Your task to perform on an android device: Clear the cart on ebay. Add "logitech g pro" to the cart on ebay, then select checkout. Image 0: 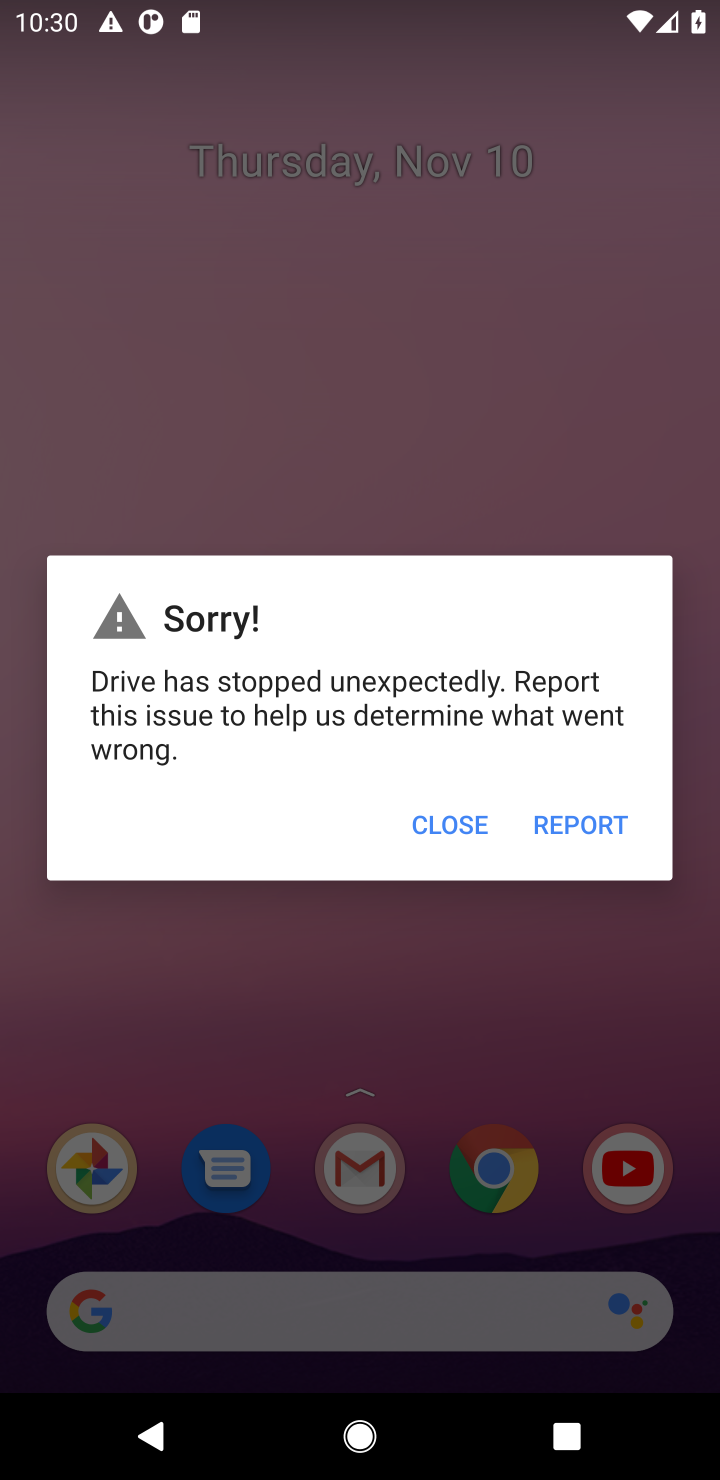
Step 0: press home button
Your task to perform on an android device: Clear the cart on ebay. Add "logitech g pro" to the cart on ebay, then select checkout. Image 1: 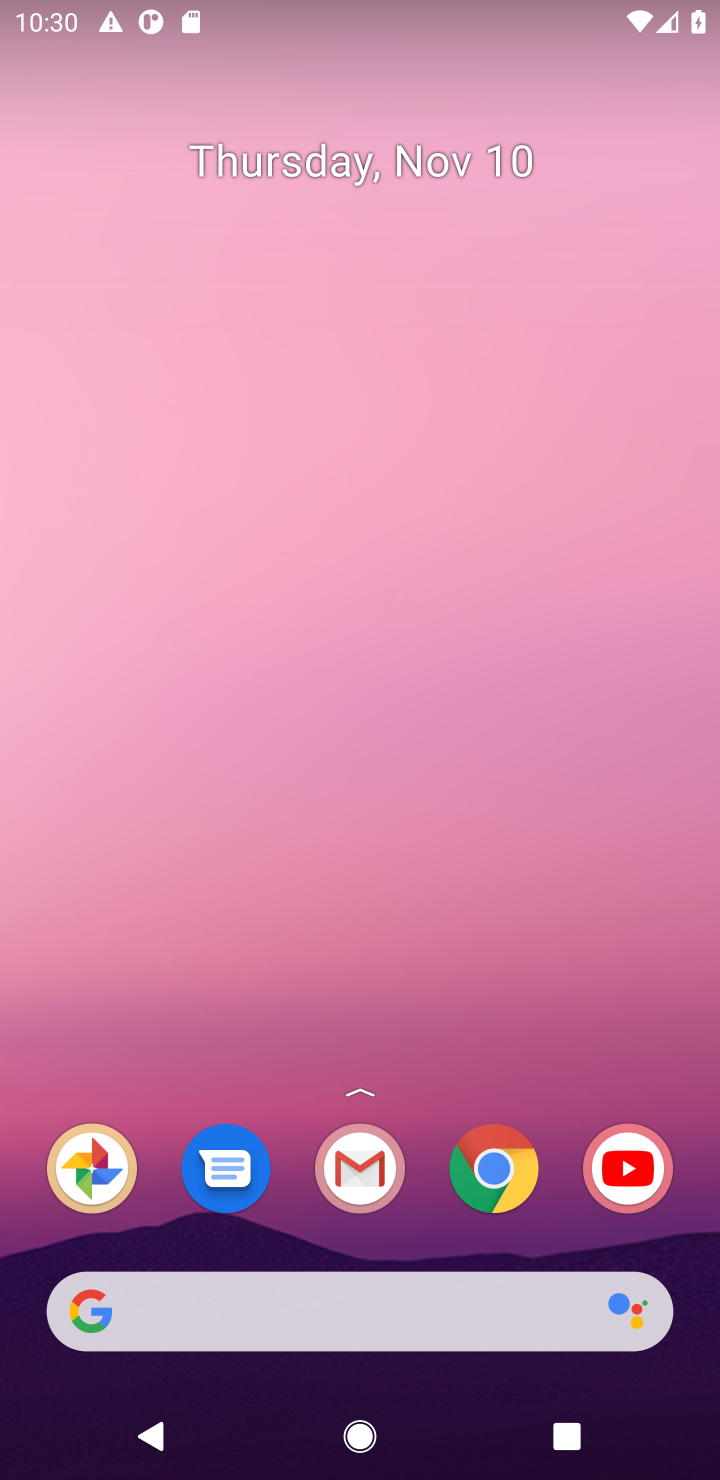
Step 1: click (495, 1171)
Your task to perform on an android device: Clear the cart on ebay. Add "logitech g pro" to the cart on ebay, then select checkout. Image 2: 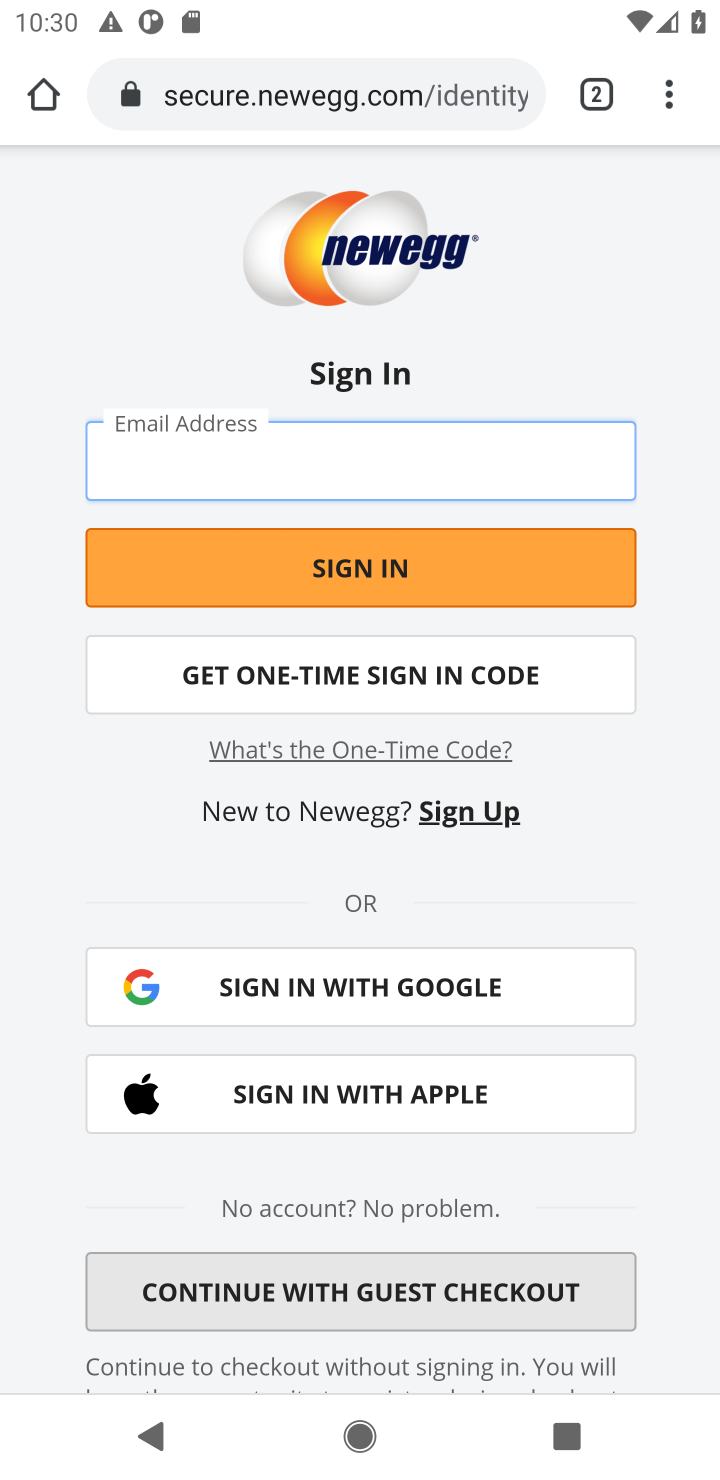
Step 2: click (297, 104)
Your task to perform on an android device: Clear the cart on ebay. Add "logitech g pro" to the cart on ebay, then select checkout. Image 3: 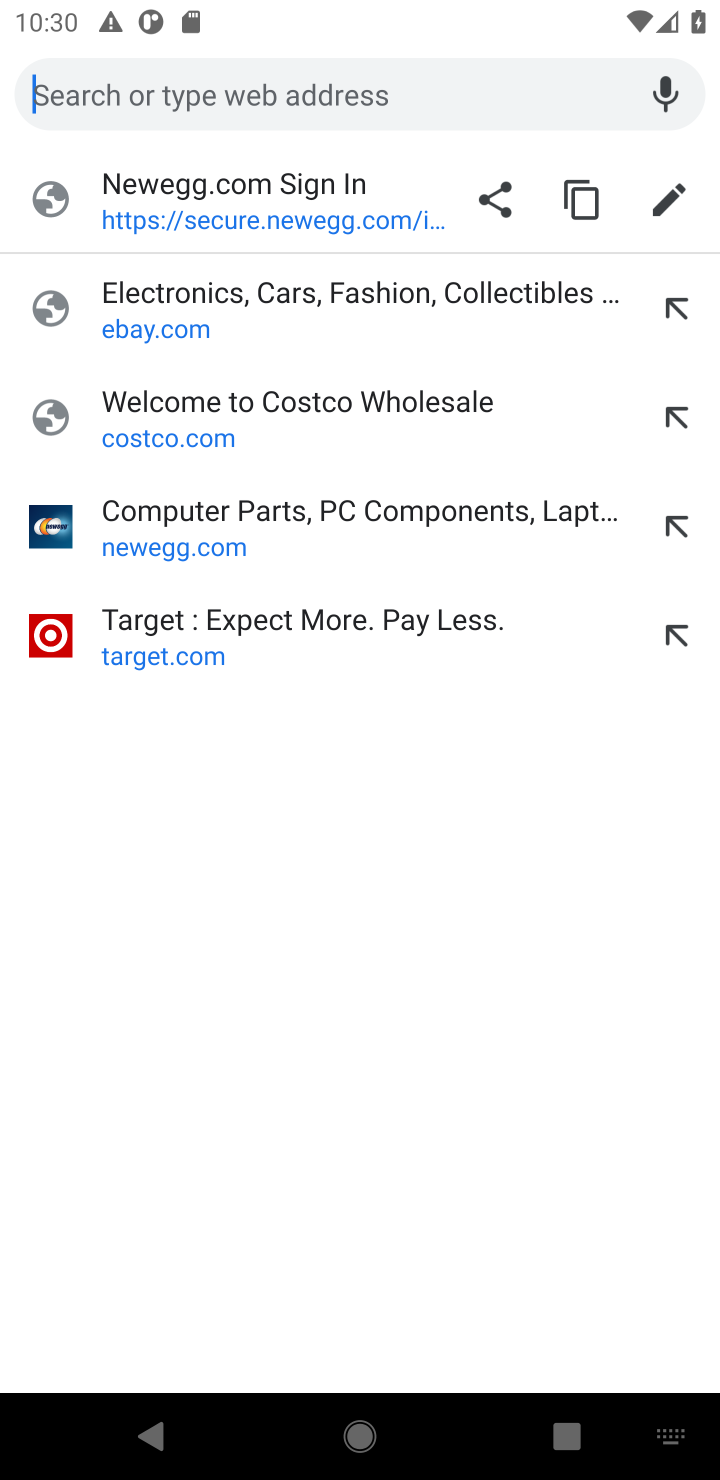
Step 3: click (155, 296)
Your task to perform on an android device: Clear the cart on ebay. Add "logitech g pro" to the cart on ebay, then select checkout. Image 4: 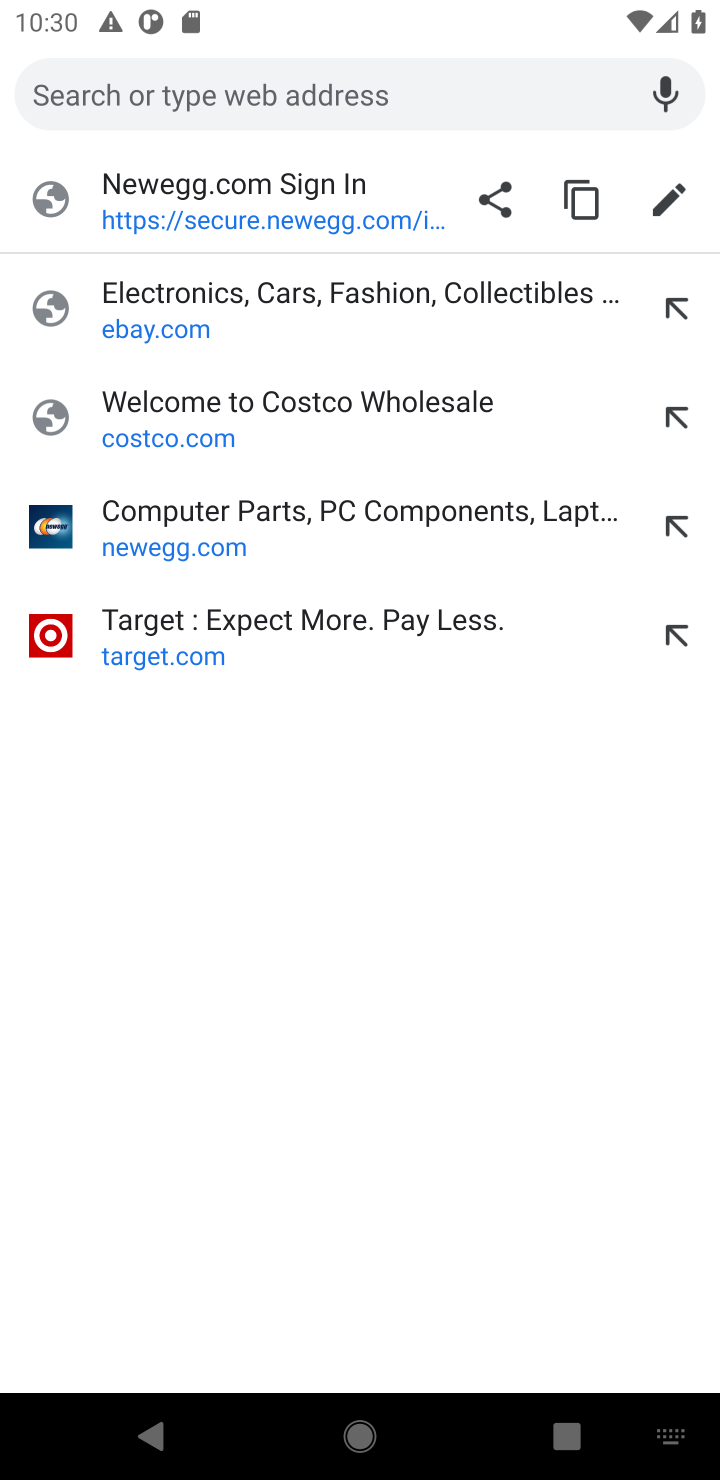
Step 4: click (165, 327)
Your task to perform on an android device: Clear the cart on ebay. Add "logitech g pro" to the cart on ebay, then select checkout. Image 5: 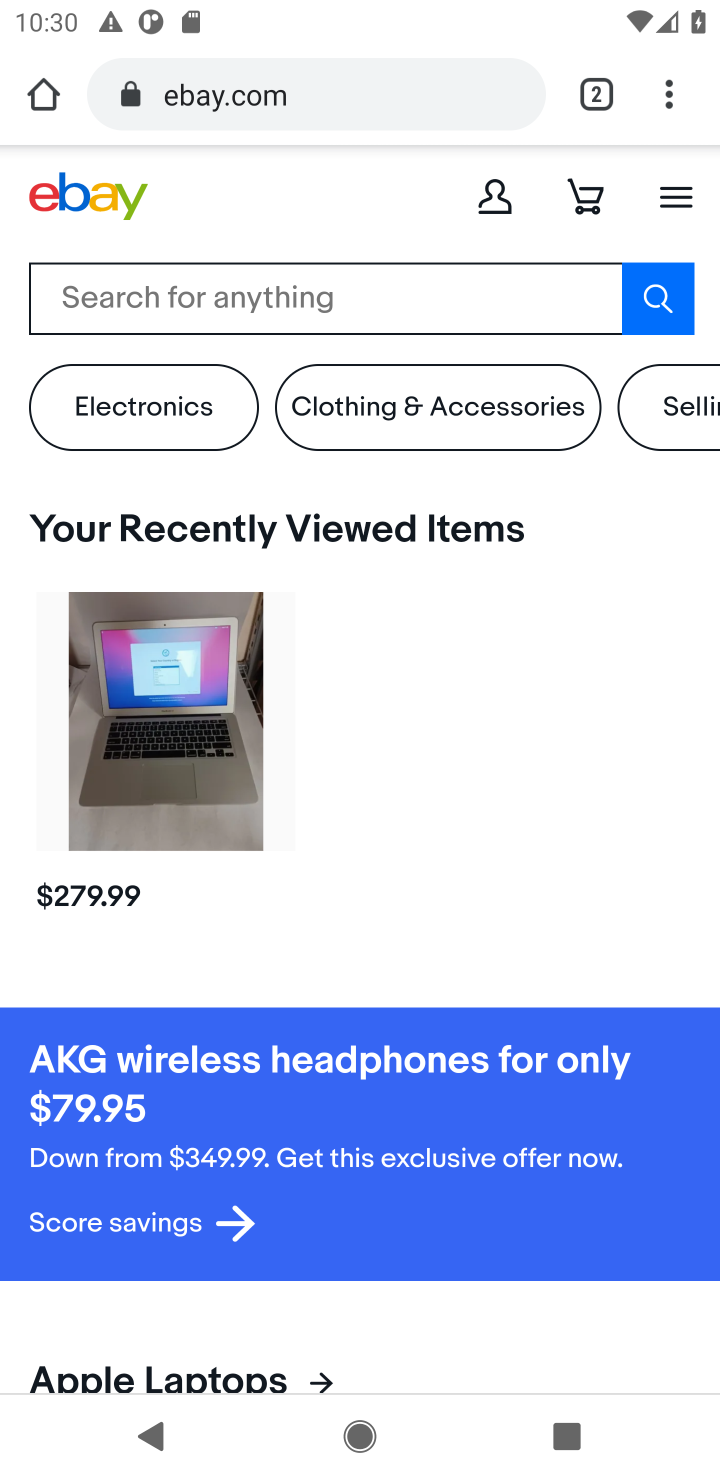
Step 5: click (580, 195)
Your task to perform on an android device: Clear the cart on ebay. Add "logitech g pro" to the cart on ebay, then select checkout. Image 6: 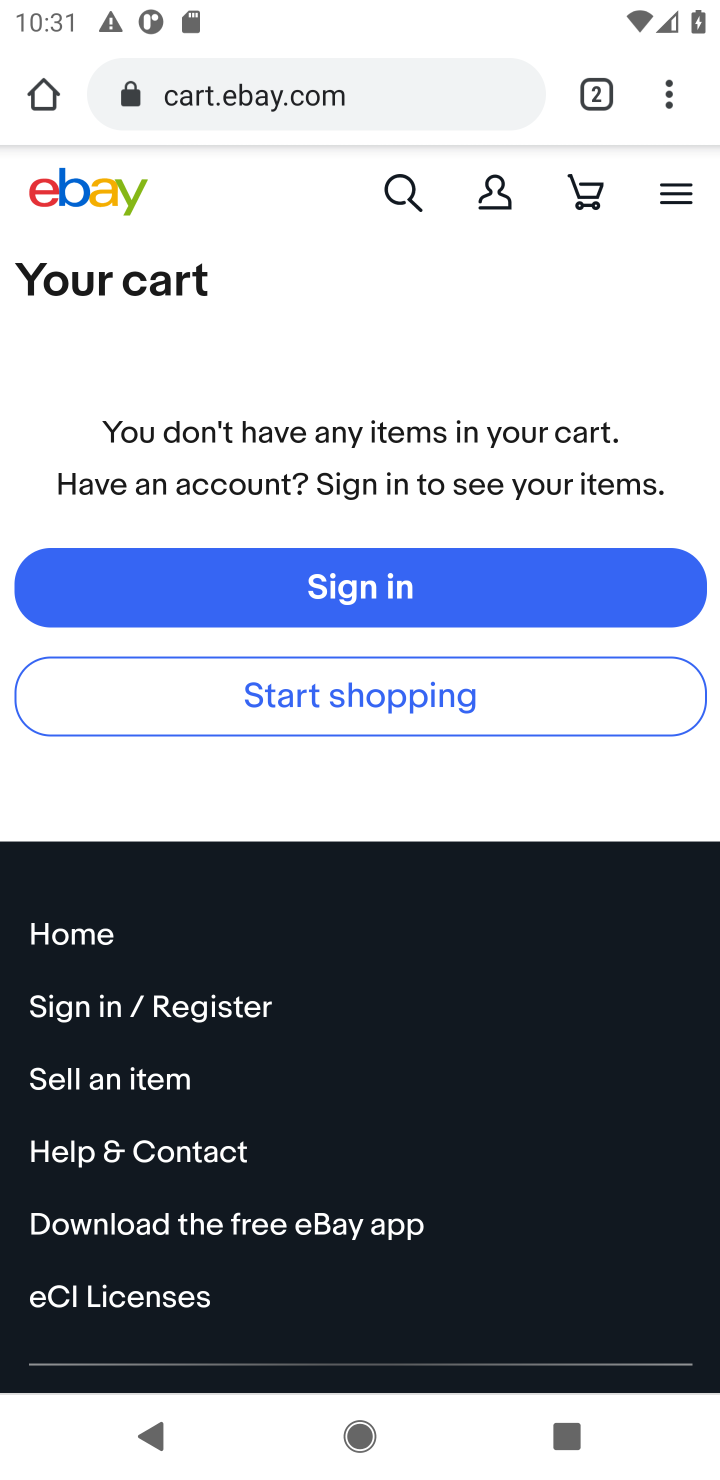
Step 6: click (391, 204)
Your task to perform on an android device: Clear the cart on ebay. Add "logitech g pro" to the cart on ebay, then select checkout. Image 7: 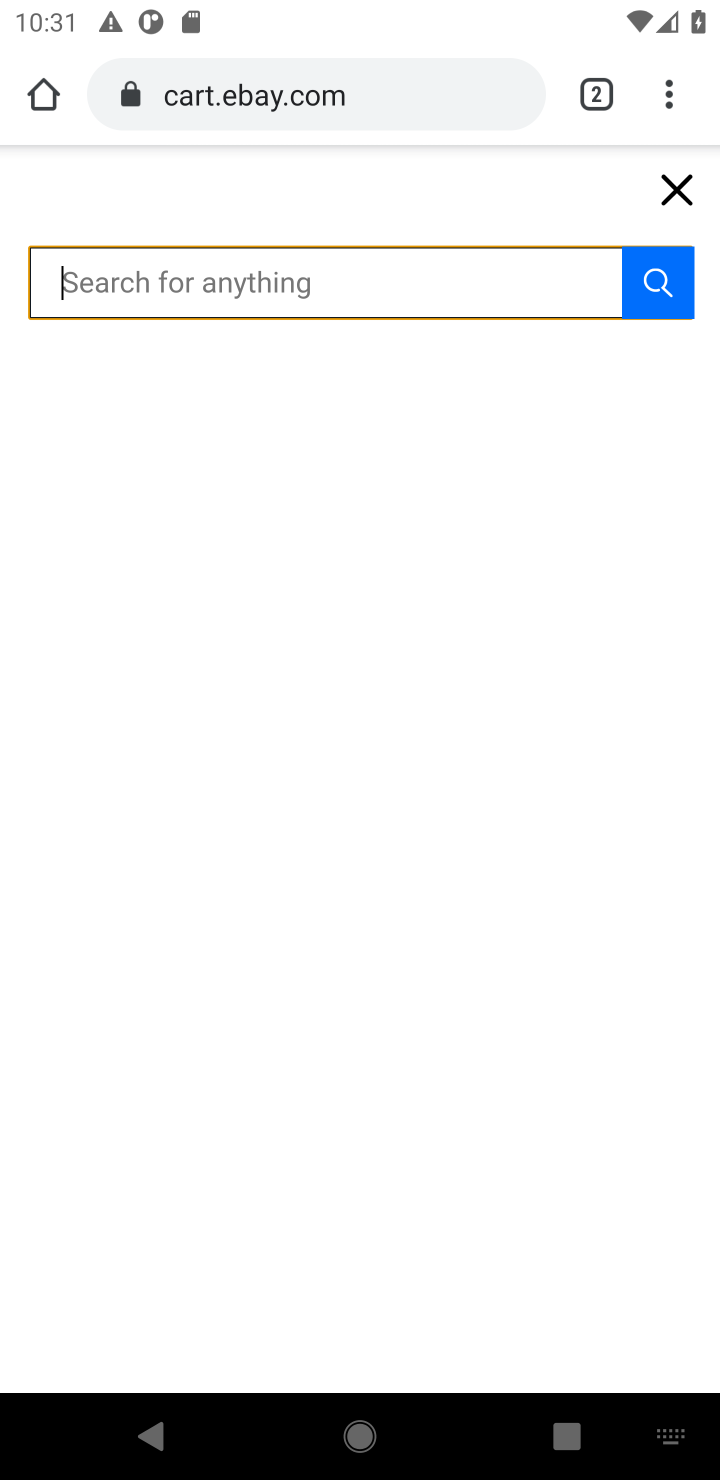
Step 7: type "logitech g pro"
Your task to perform on an android device: Clear the cart on ebay. Add "logitech g pro" to the cart on ebay, then select checkout. Image 8: 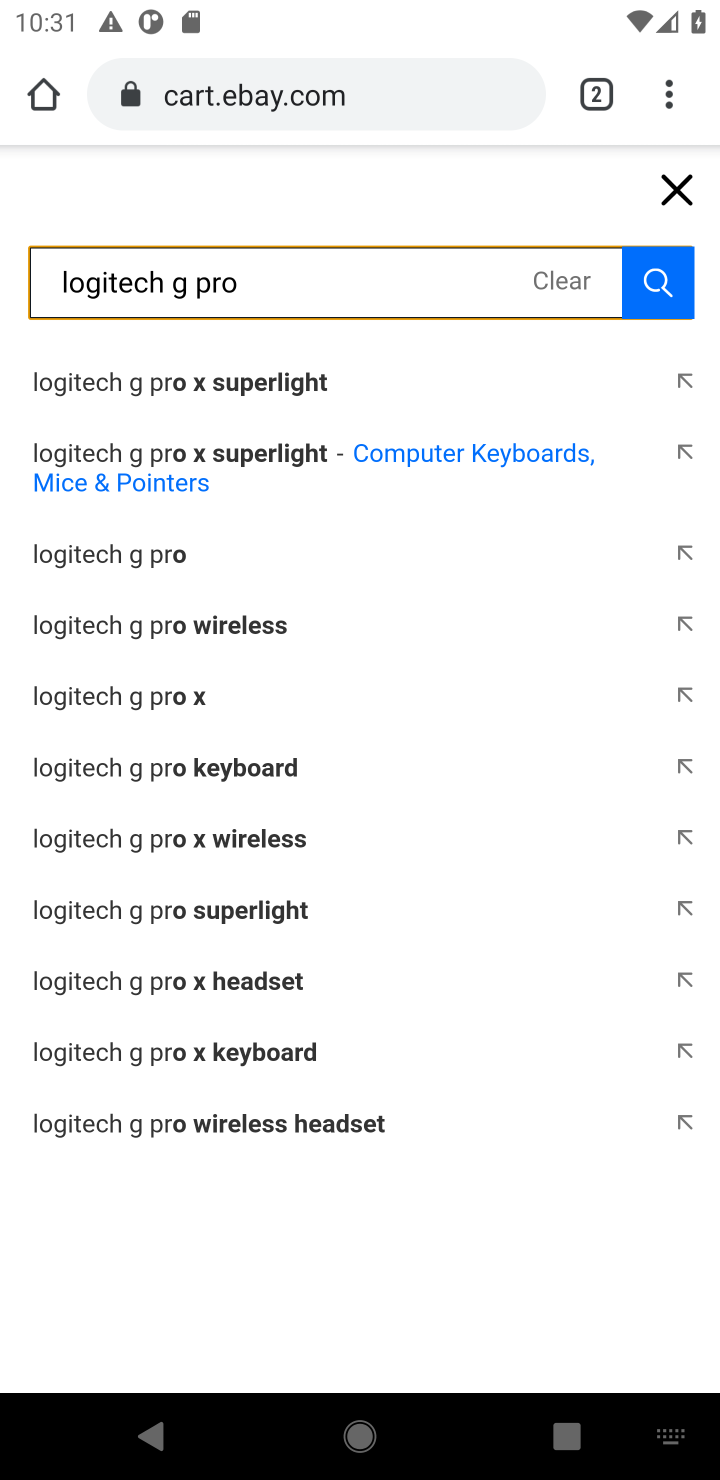
Step 8: click (145, 563)
Your task to perform on an android device: Clear the cart on ebay. Add "logitech g pro" to the cart on ebay, then select checkout. Image 9: 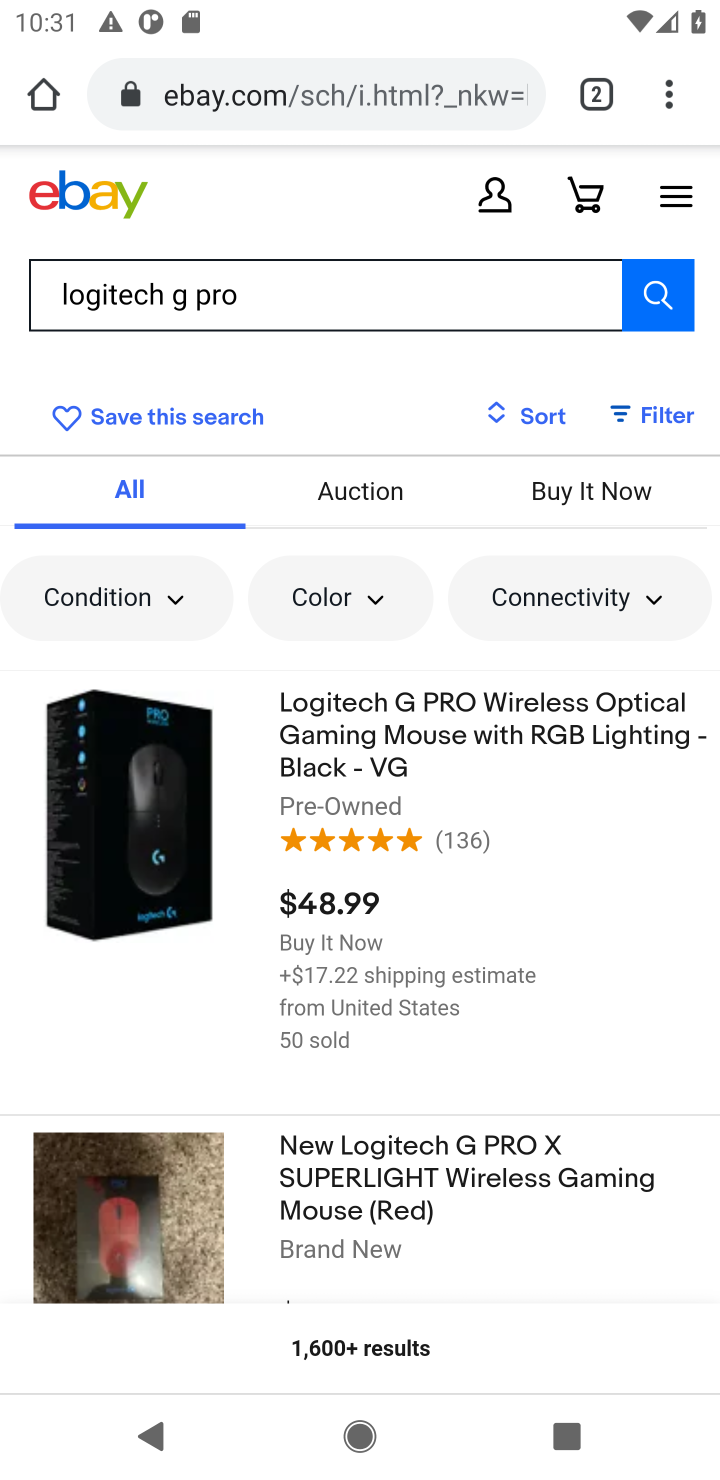
Step 9: click (134, 816)
Your task to perform on an android device: Clear the cart on ebay. Add "logitech g pro" to the cart on ebay, then select checkout. Image 10: 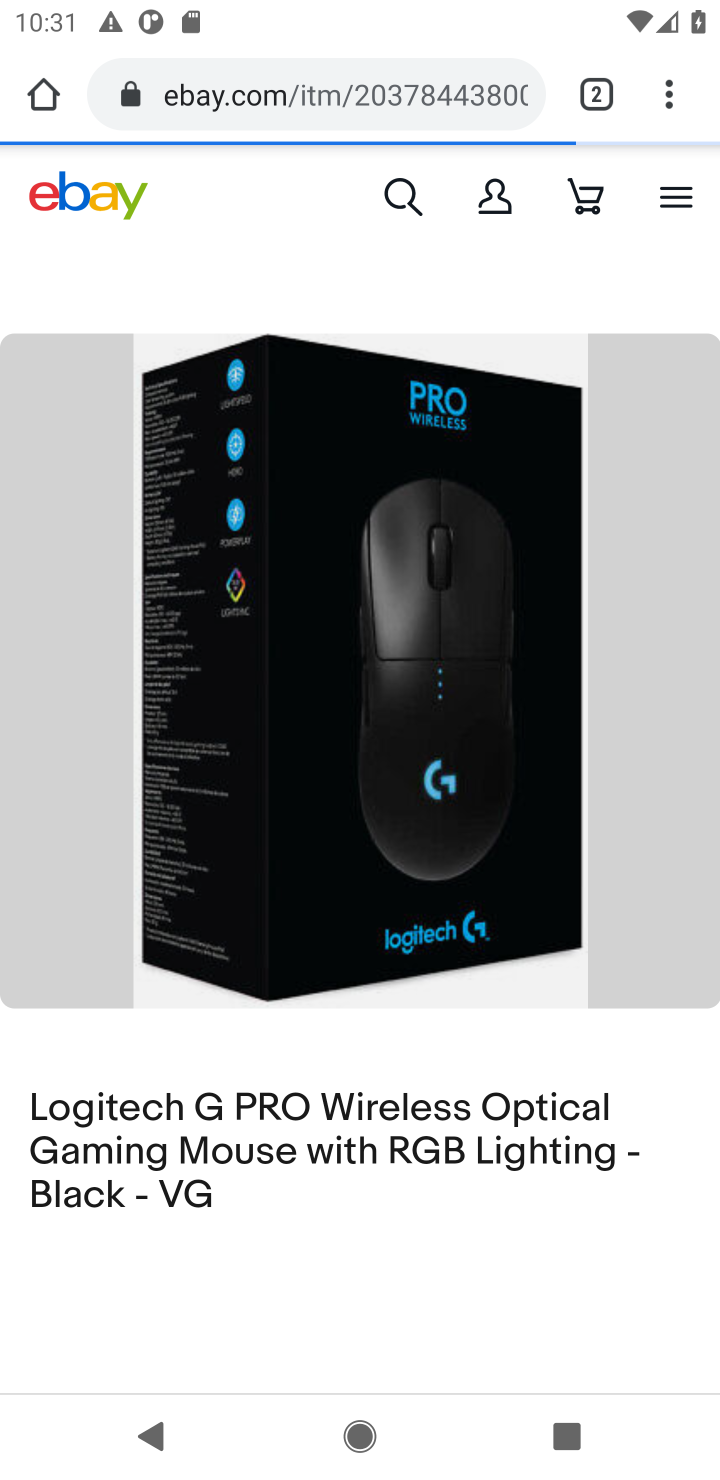
Step 10: drag from (339, 1050) to (301, 353)
Your task to perform on an android device: Clear the cart on ebay. Add "logitech g pro" to the cart on ebay, then select checkout. Image 11: 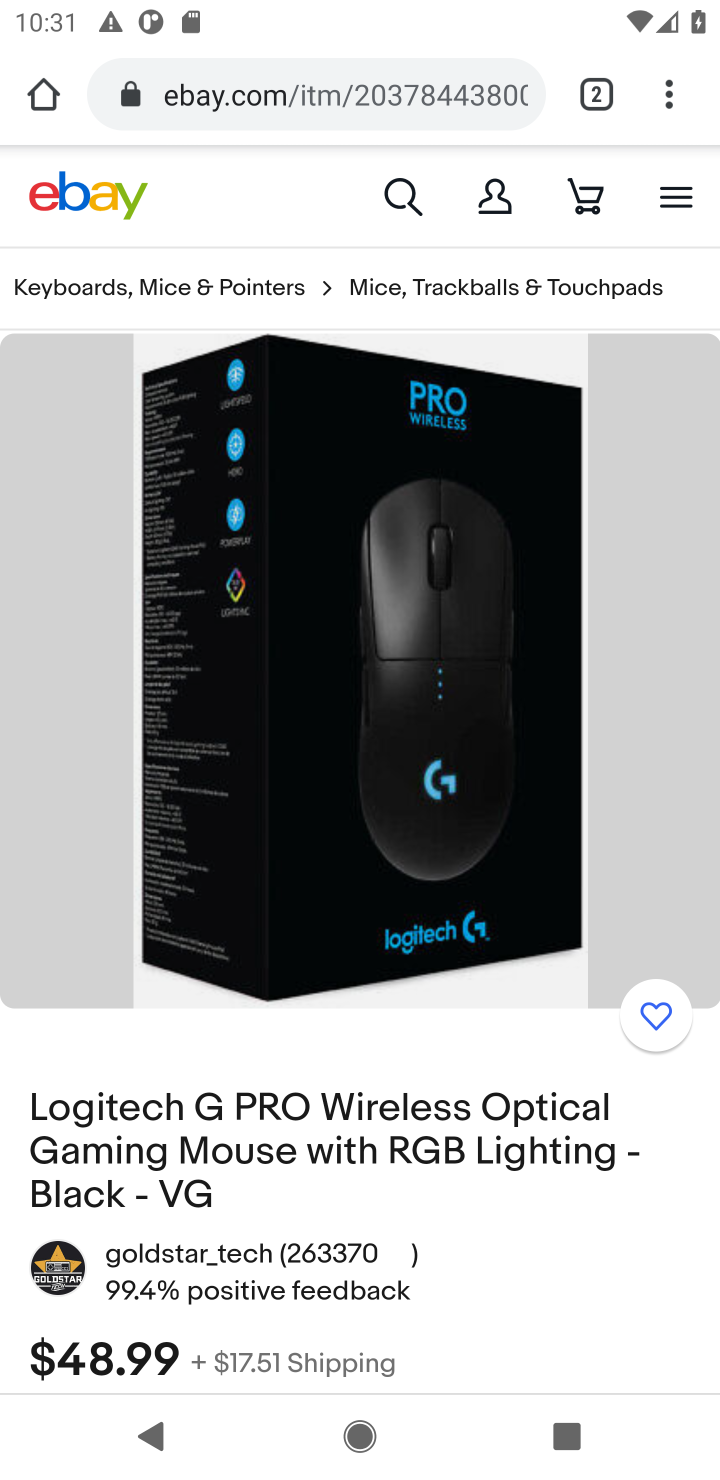
Step 11: drag from (412, 986) to (374, 429)
Your task to perform on an android device: Clear the cart on ebay. Add "logitech g pro" to the cart on ebay, then select checkout. Image 12: 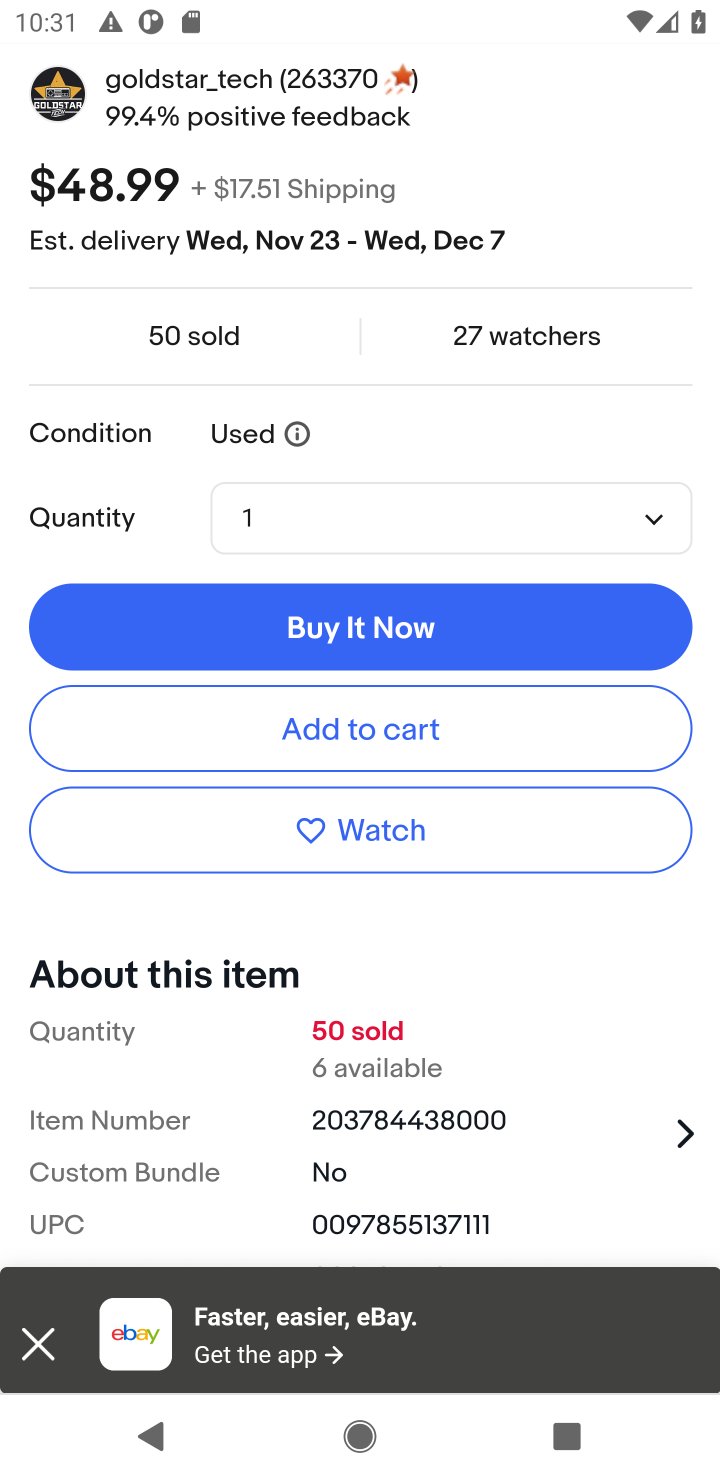
Step 12: click (324, 727)
Your task to perform on an android device: Clear the cart on ebay. Add "logitech g pro" to the cart on ebay, then select checkout. Image 13: 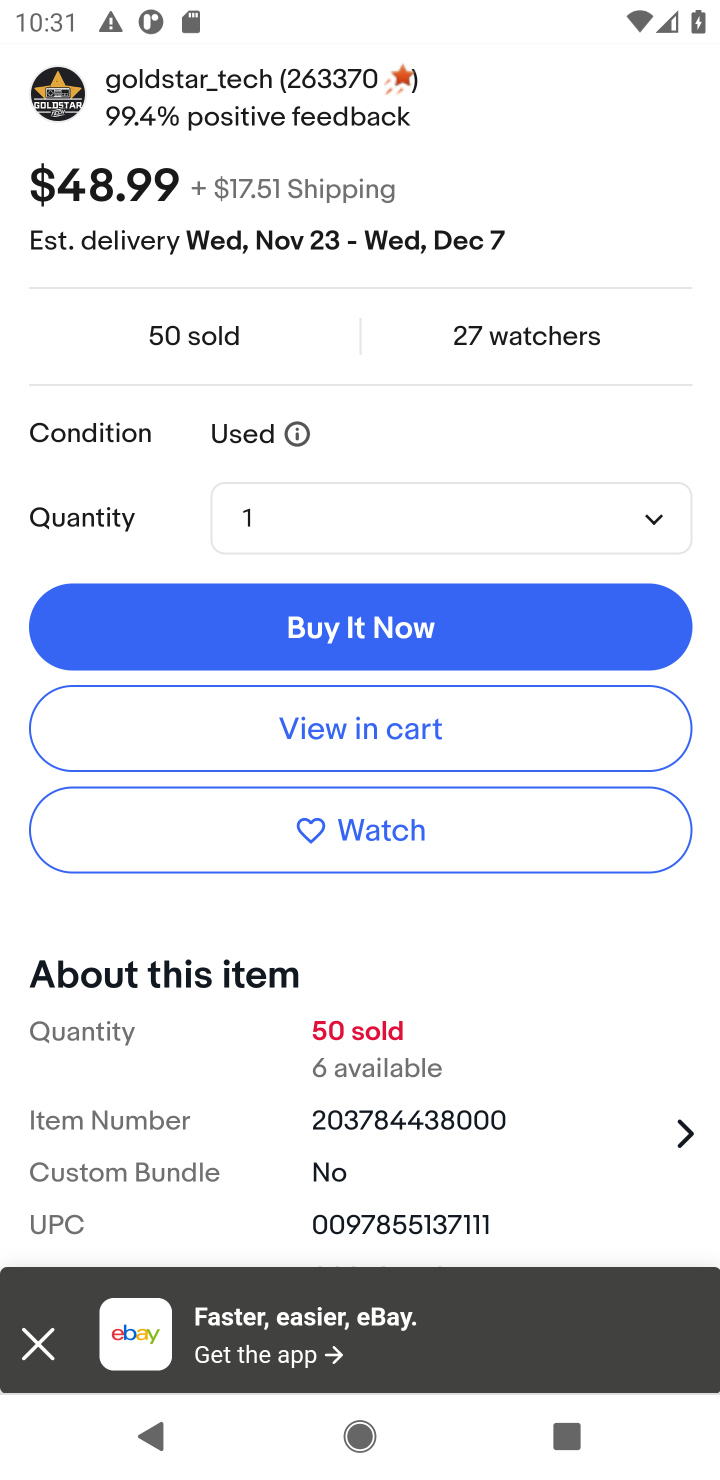
Step 13: click (324, 727)
Your task to perform on an android device: Clear the cart on ebay. Add "logitech g pro" to the cart on ebay, then select checkout. Image 14: 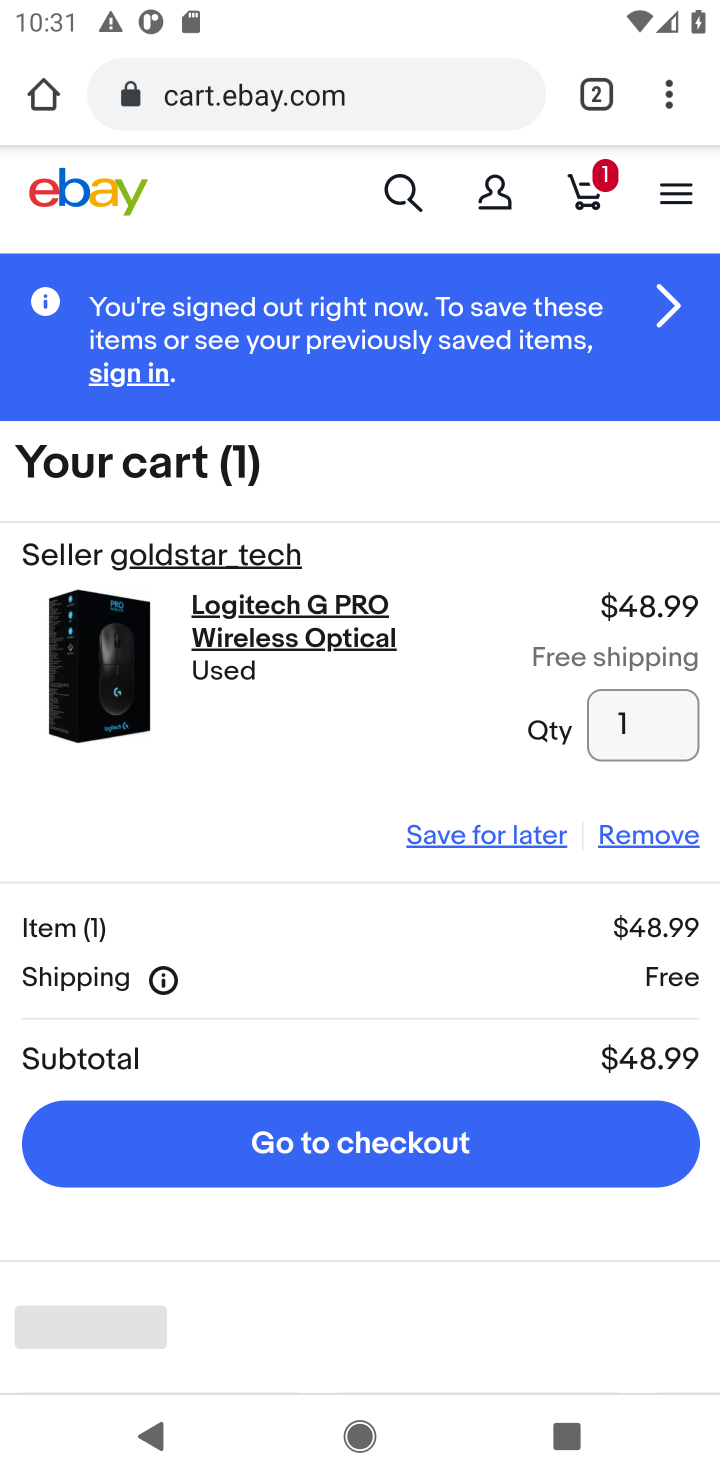
Step 14: click (373, 1157)
Your task to perform on an android device: Clear the cart on ebay. Add "logitech g pro" to the cart on ebay, then select checkout. Image 15: 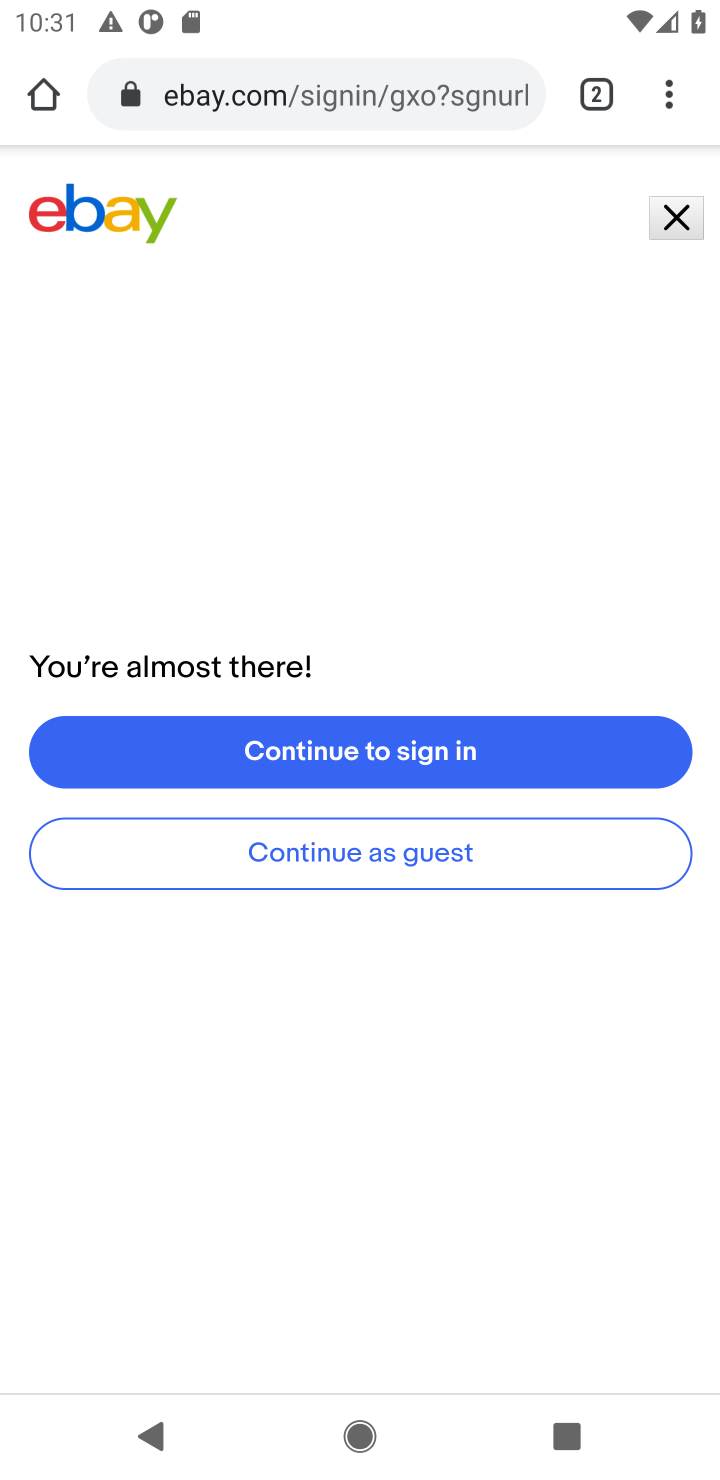
Step 15: task complete